Your task to perform on an android device: delete location history Image 0: 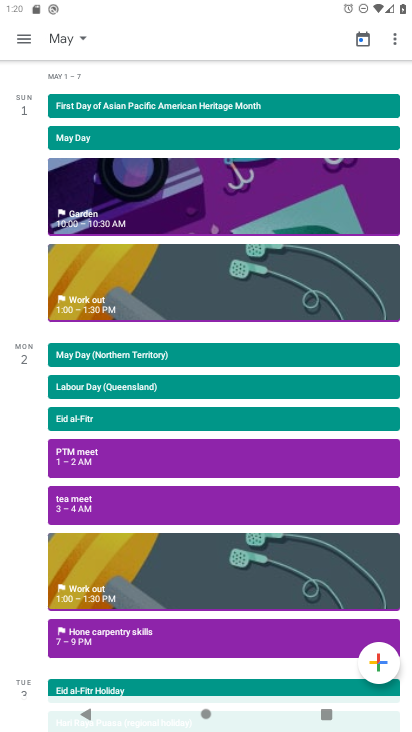
Step 0: press home button
Your task to perform on an android device: delete location history Image 1: 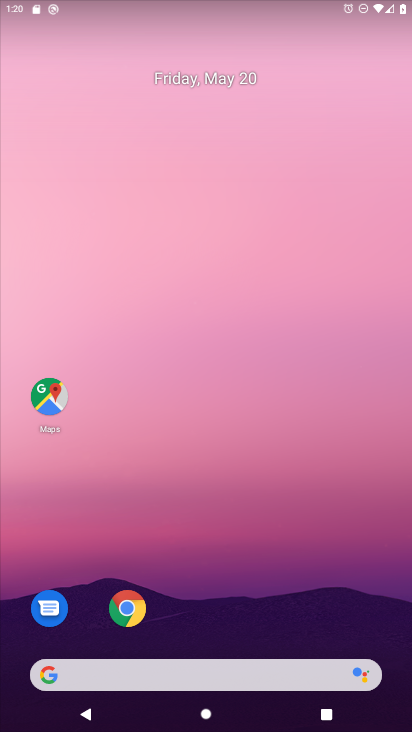
Step 1: drag from (300, 628) to (301, 16)
Your task to perform on an android device: delete location history Image 2: 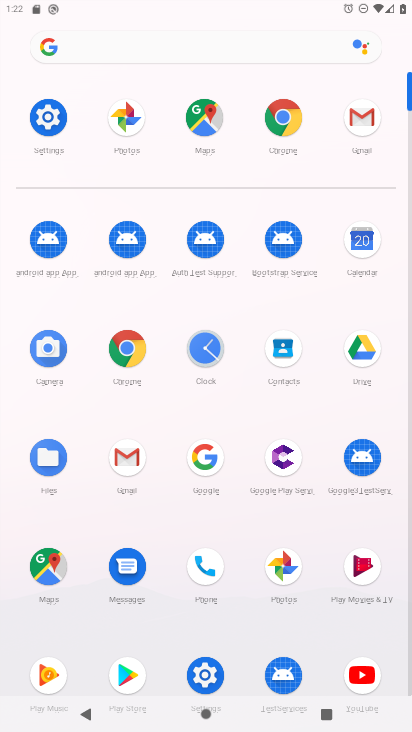
Step 2: click (20, 575)
Your task to perform on an android device: delete location history Image 3: 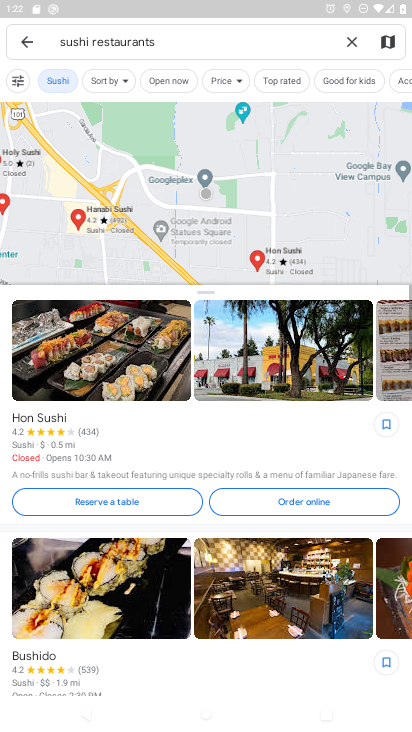
Step 3: click (27, 35)
Your task to perform on an android device: delete location history Image 4: 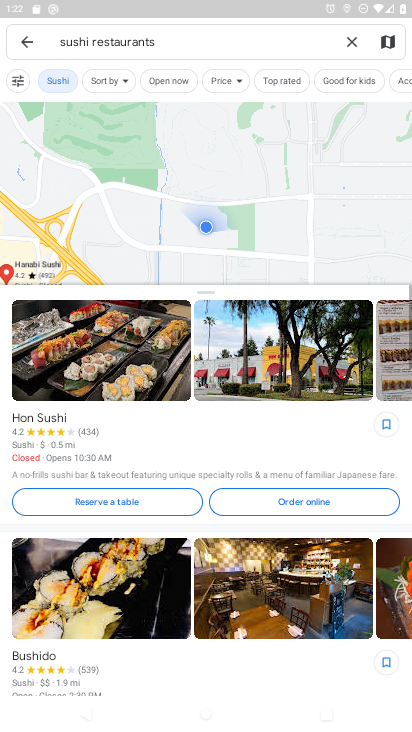
Step 4: click (27, 35)
Your task to perform on an android device: delete location history Image 5: 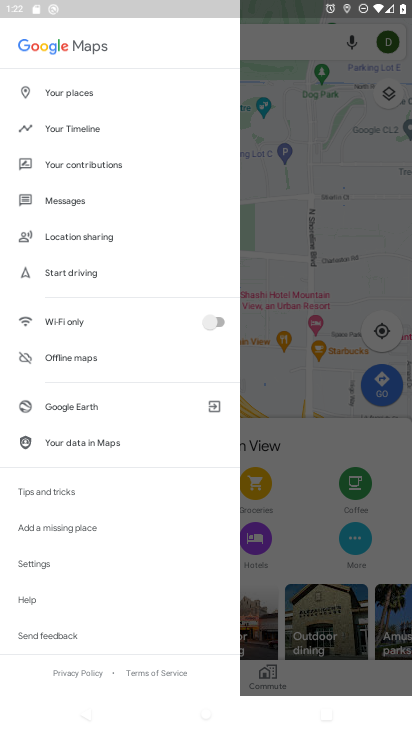
Step 5: click (99, 120)
Your task to perform on an android device: delete location history Image 6: 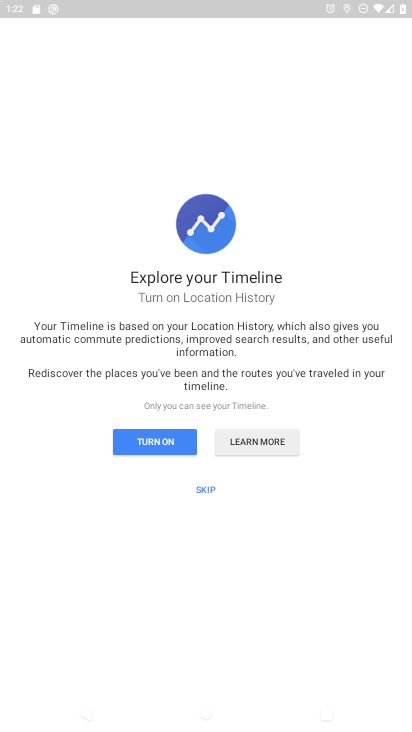
Step 6: click (200, 492)
Your task to perform on an android device: delete location history Image 7: 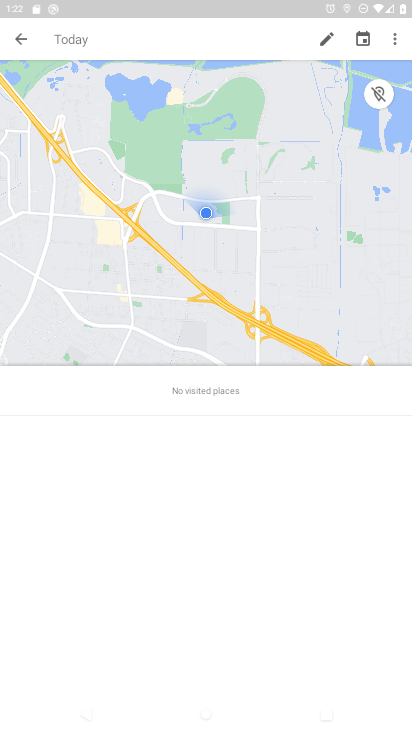
Step 7: click (402, 35)
Your task to perform on an android device: delete location history Image 8: 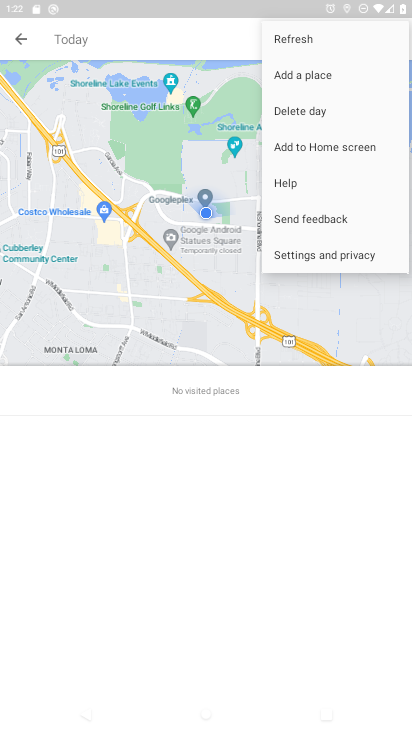
Step 8: click (325, 254)
Your task to perform on an android device: delete location history Image 9: 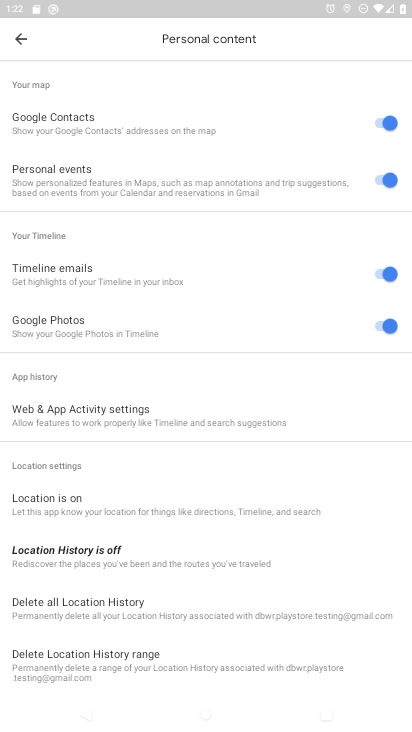
Step 9: click (64, 606)
Your task to perform on an android device: delete location history Image 10: 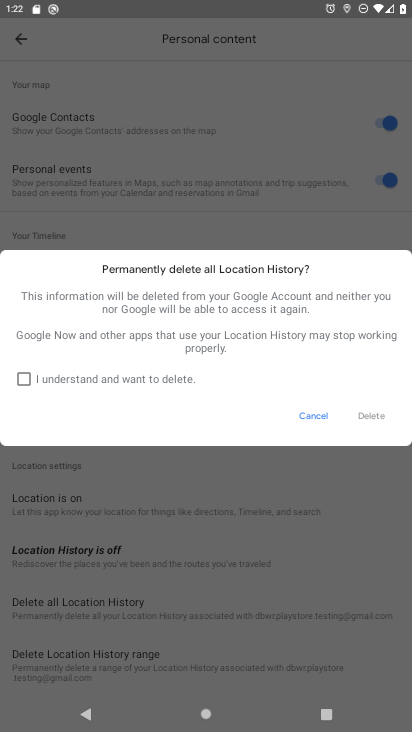
Step 10: click (163, 373)
Your task to perform on an android device: delete location history Image 11: 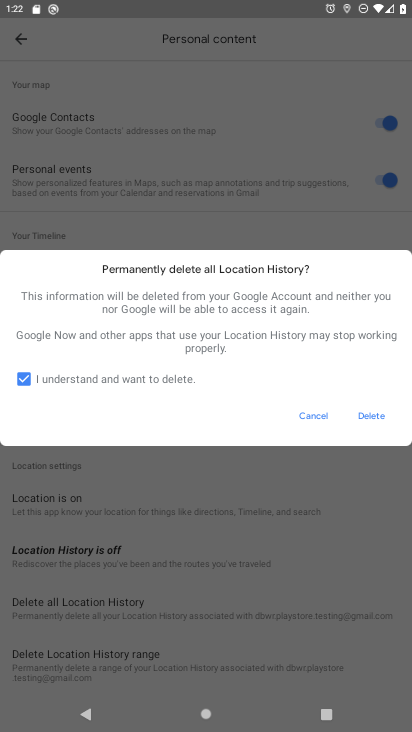
Step 11: click (380, 418)
Your task to perform on an android device: delete location history Image 12: 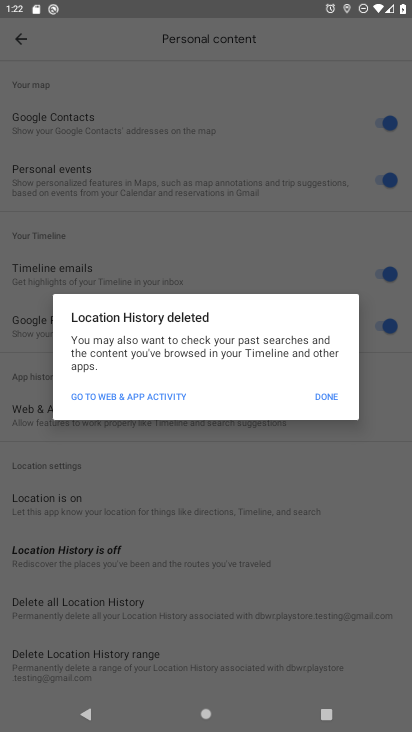
Step 12: click (325, 395)
Your task to perform on an android device: delete location history Image 13: 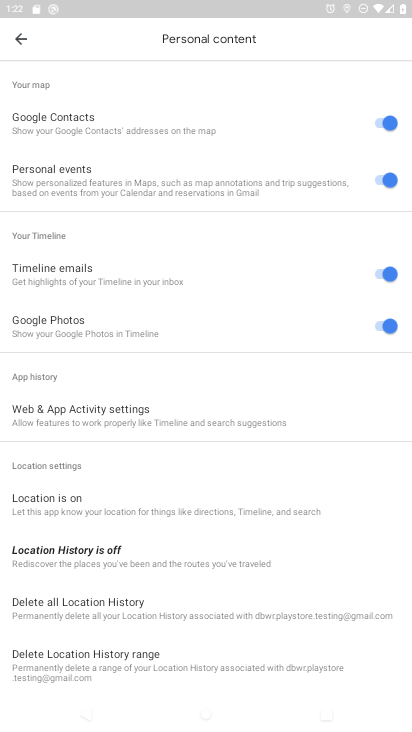
Step 13: task complete